Your task to perform on an android device: change your default location settings in chrome Image 0: 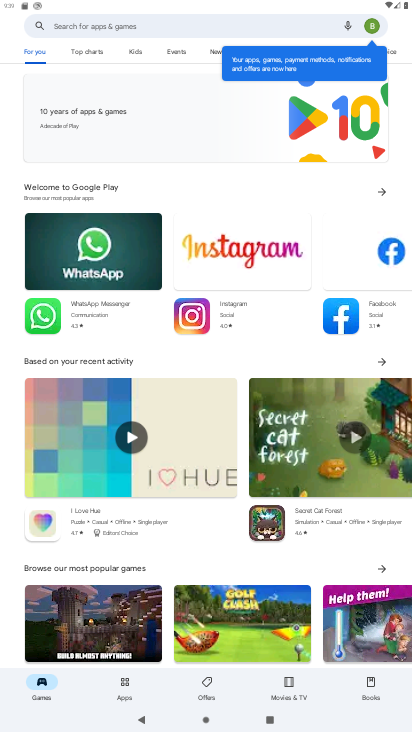
Step 0: press home button
Your task to perform on an android device: change your default location settings in chrome Image 1: 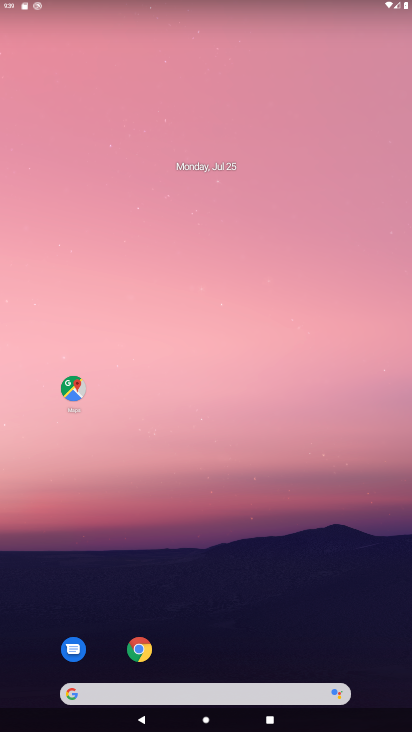
Step 1: click (137, 657)
Your task to perform on an android device: change your default location settings in chrome Image 2: 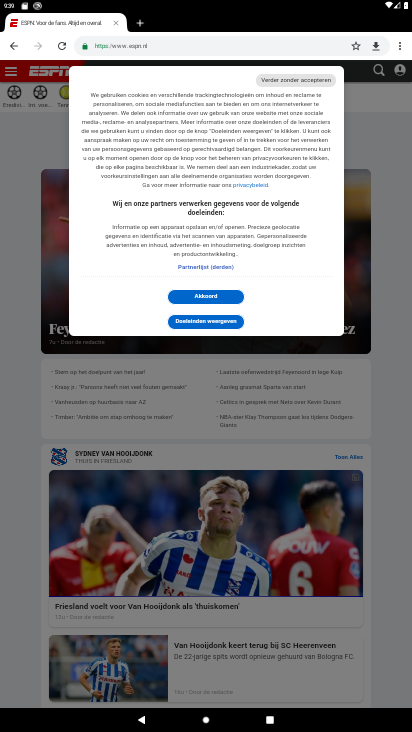
Step 2: click (397, 38)
Your task to perform on an android device: change your default location settings in chrome Image 3: 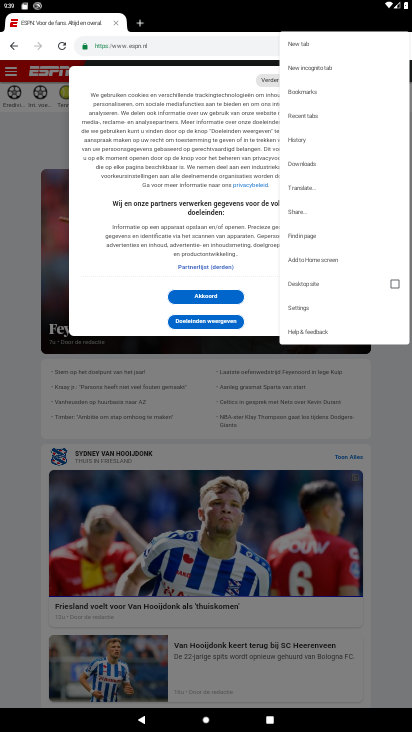
Step 3: click (300, 308)
Your task to perform on an android device: change your default location settings in chrome Image 4: 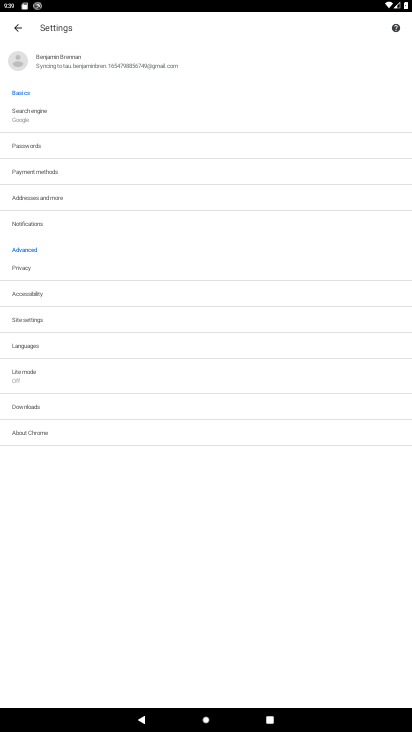
Step 4: click (34, 322)
Your task to perform on an android device: change your default location settings in chrome Image 5: 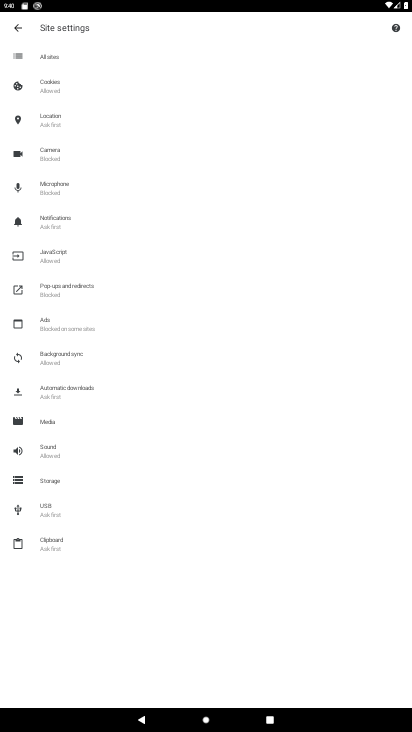
Step 5: click (61, 122)
Your task to perform on an android device: change your default location settings in chrome Image 6: 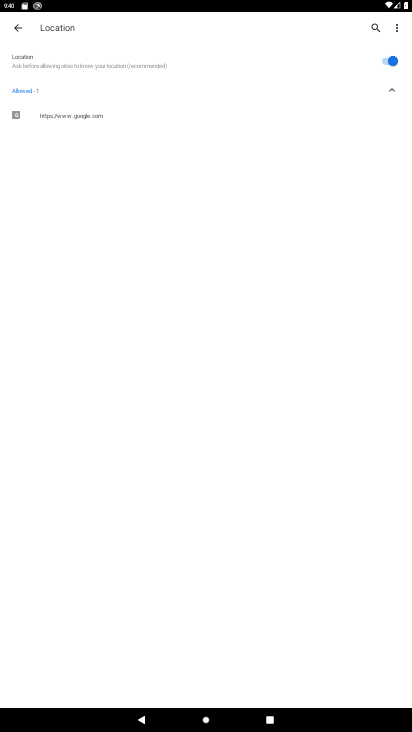
Step 6: click (379, 54)
Your task to perform on an android device: change your default location settings in chrome Image 7: 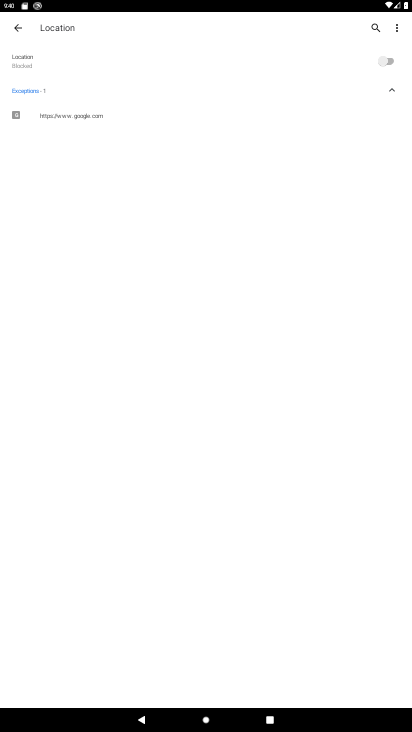
Step 7: task complete